Your task to perform on an android device: Open Youtube and go to "Your channel" Image 0: 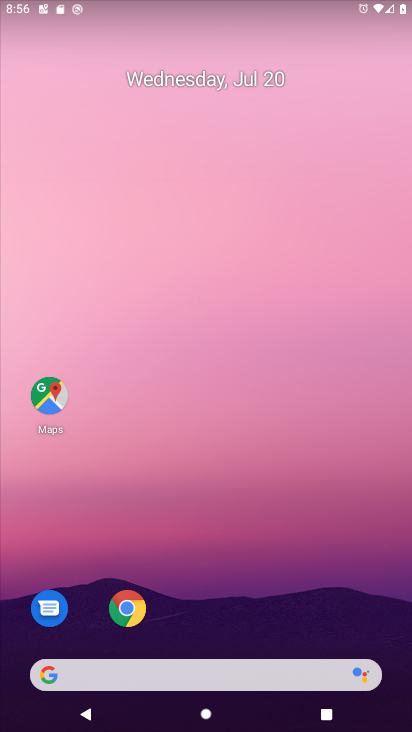
Step 0: drag from (259, 619) to (257, 344)
Your task to perform on an android device: Open Youtube and go to "Your channel" Image 1: 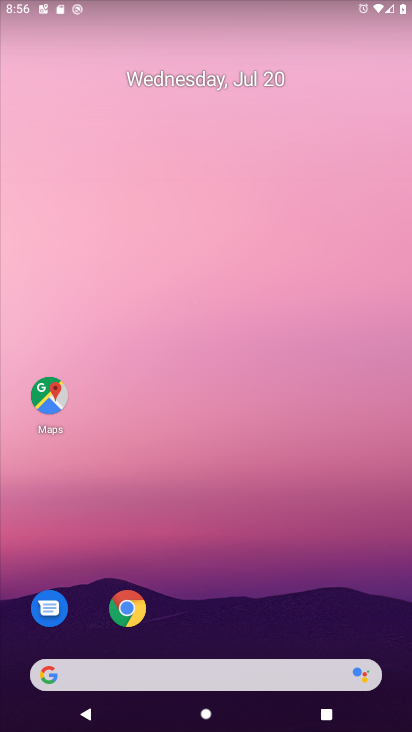
Step 1: drag from (167, 610) to (170, 116)
Your task to perform on an android device: Open Youtube and go to "Your channel" Image 2: 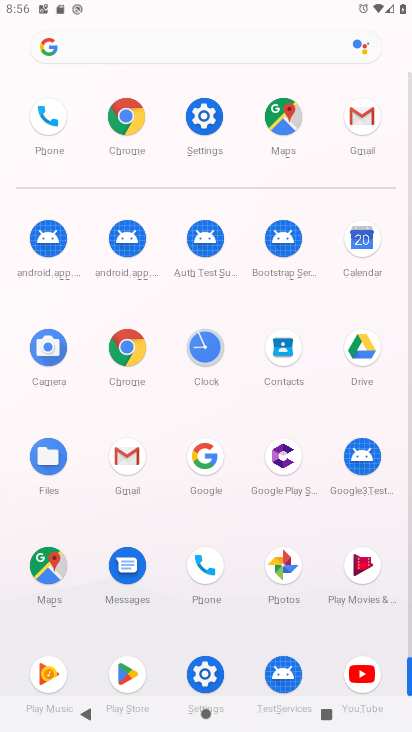
Step 2: click (358, 665)
Your task to perform on an android device: Open Youtube and go to "Your channel" Image 3: 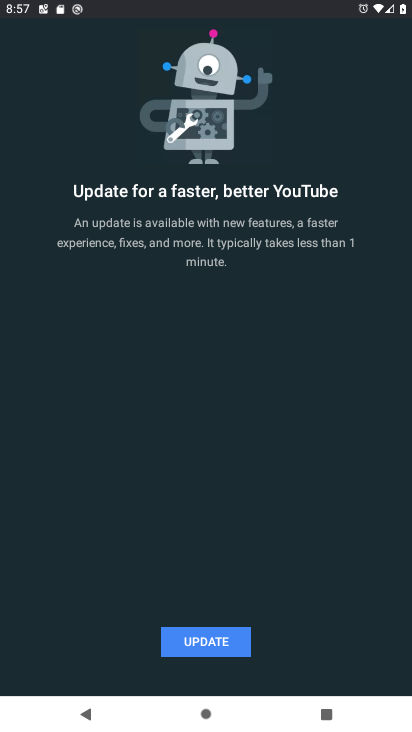
Step 3: task complete